Your task to perform on an android device: Open Maps and search for coffee Image 0: 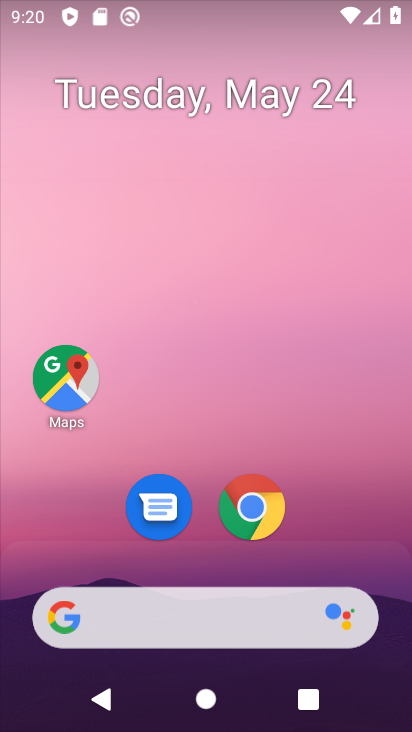
Step 0: click (63, 364)
Your task to perform on an android device: Open Maps and search for coffee Image 1: 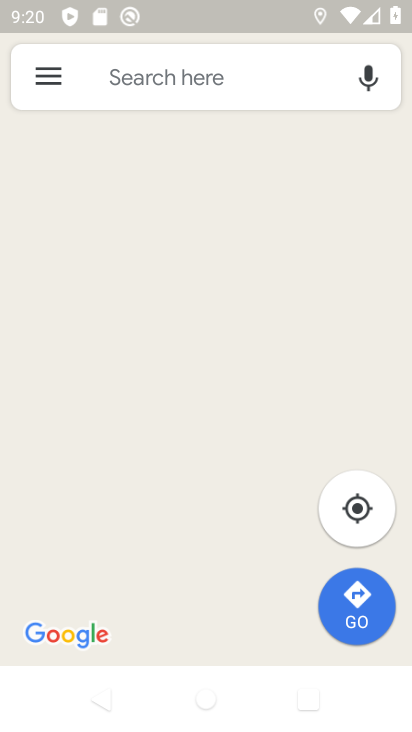
Step 1: click (175, 85)
Your task to perform on an android device: Open Maps and search for coffee Image 2: 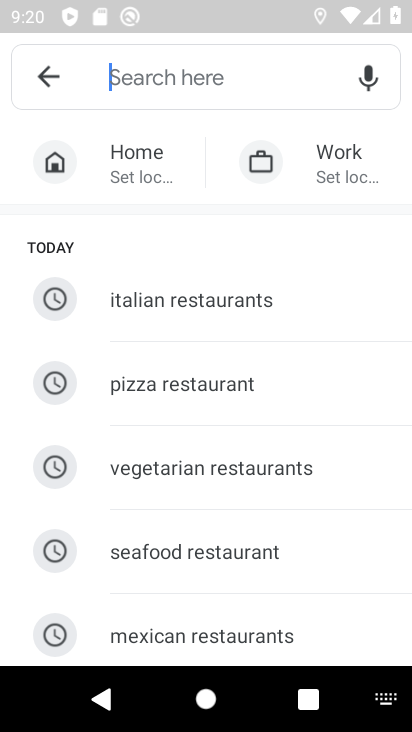
Step 2: type "Coffee "
Your task to perform on an android device: Open Maps and search for coffee Image 3: 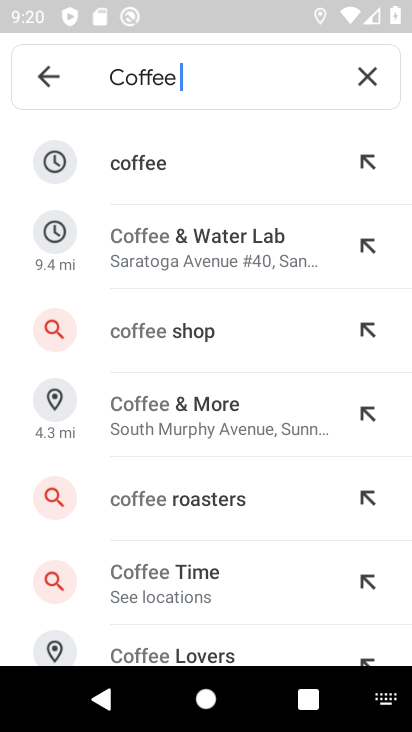
Step 3: click (177, 164)
Your task to perform on an android device: Open Maps and search for coffee Image 4: 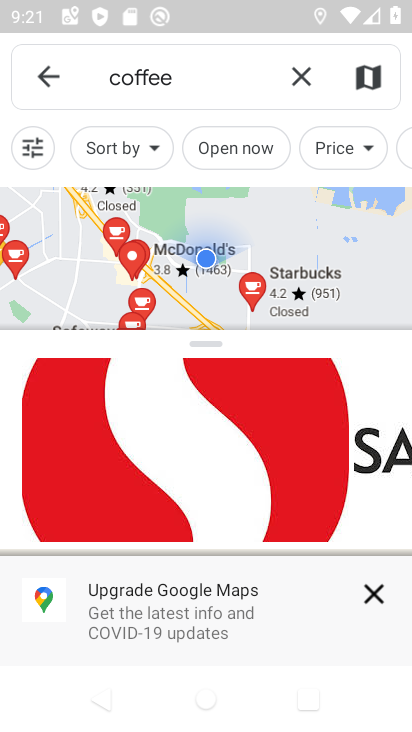
Step 4: click (387, 601)
Your task to perform on an android device: Open Maps and search for coffee Image 5: 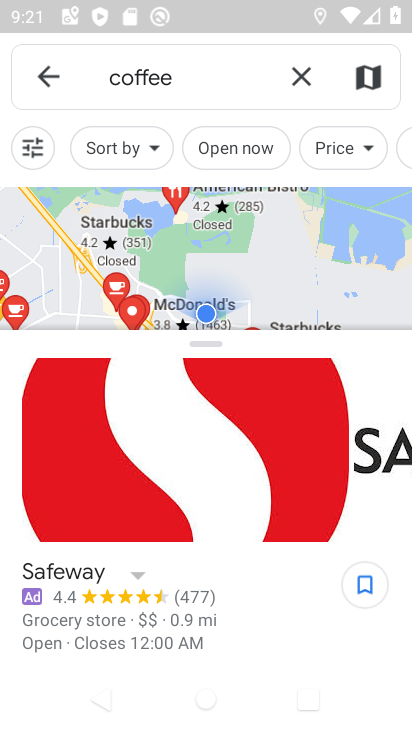
Step 5: task complete